Your task to perform on an android device: turn on javascript in the chrome app Image 0: 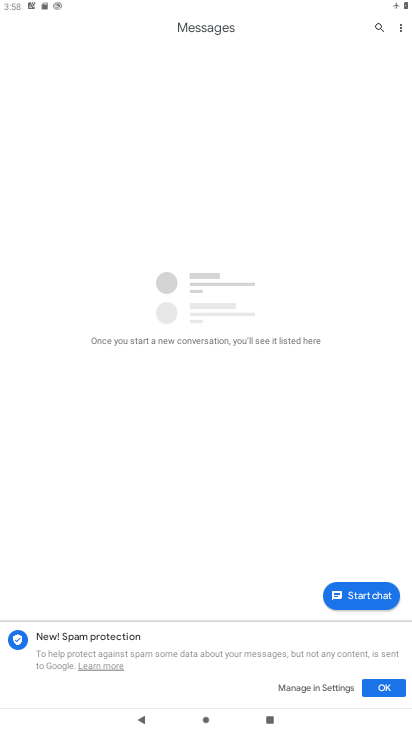
Step 0: press home button
Your task to perform on an android device: turn on javascript in the chrome app Image 1: 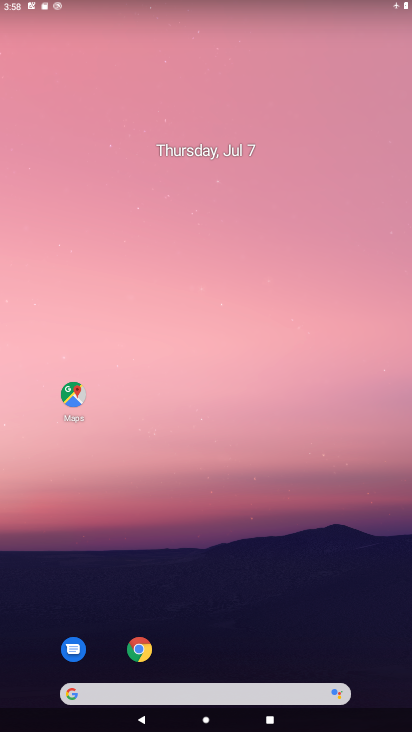
Step 1: click (137, 648)
Your task to perform on an android device: turn on javascript in the chrome app Image 2: 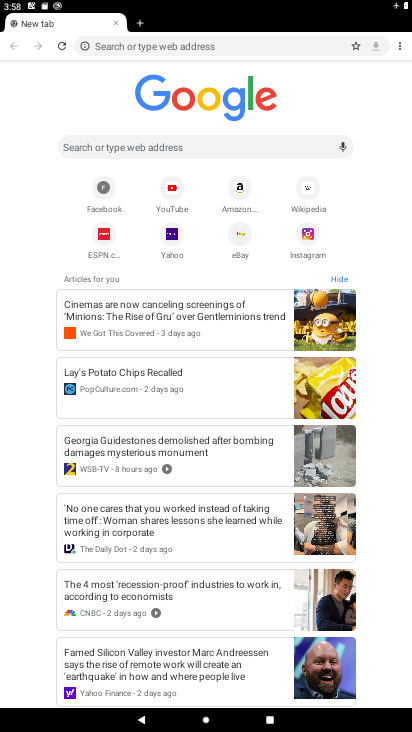
Step 2: click (400, 47)
Your task to perform on an android device: turn on javascript in the chrome app Image 3: 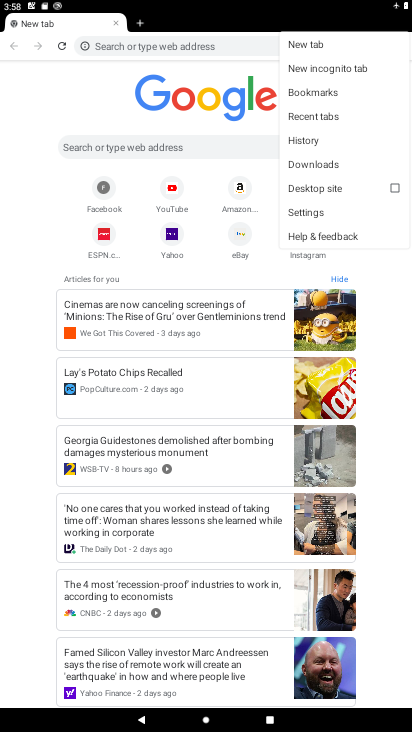
Step 3: click (304, 209)
Your task to perform on an android device: turn on javascript in the chrome app Image 4: 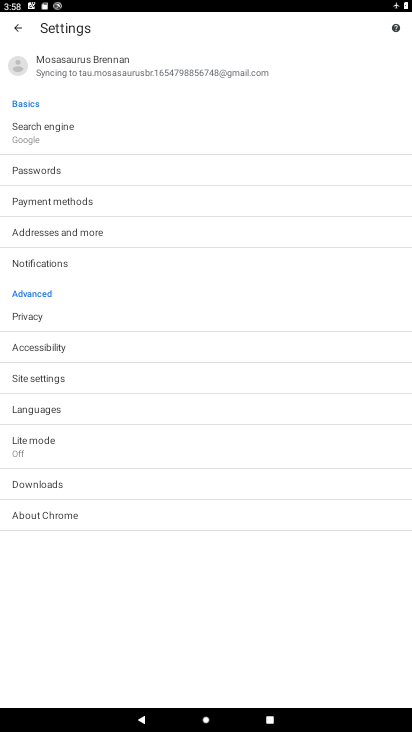
Step 4: click (44, 376)
Your task to perform on an android device: turn on javascript in the chrome app Image 5: 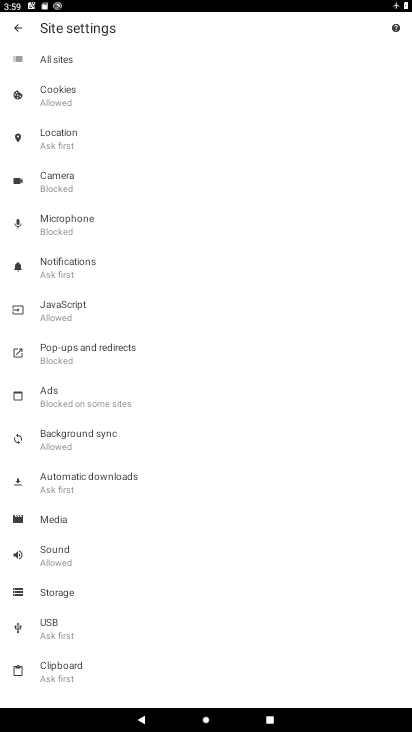
Step 5: click (56, 306)
Your task to perform on an android device: turn on javascript in the chrome app Image 6: 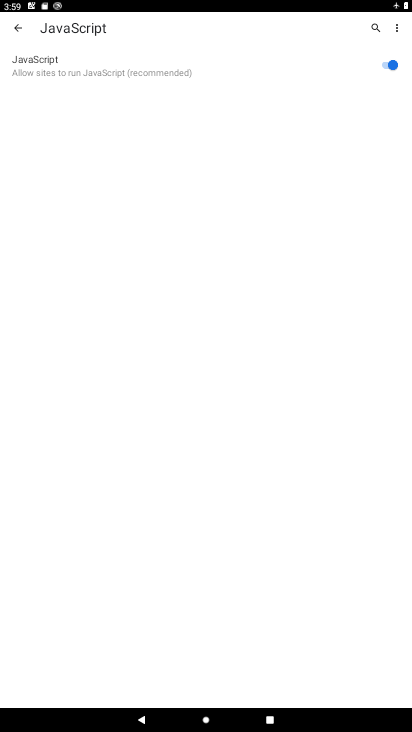
Step 6: task complete